Your task to perform on an android device: Go to Android settings Image 0: 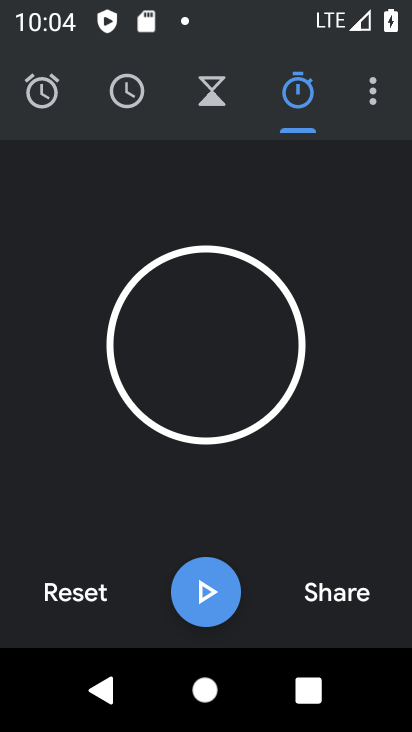
Step 0: press home button
Your task to perform on an android device: Go to Android settings Image 1: 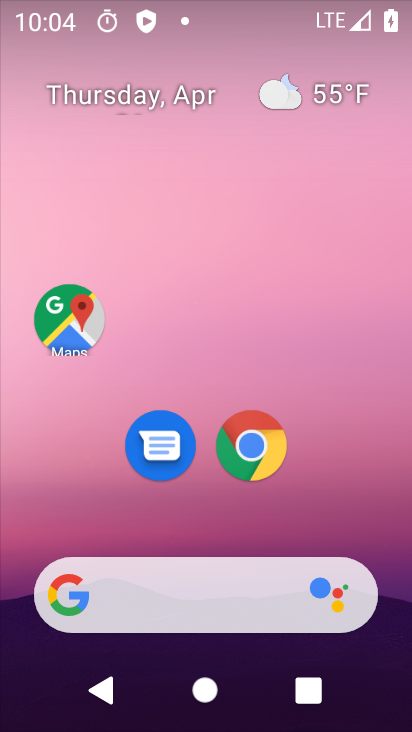
Step 1: drag from (342, 482) to (330, 10)
Your task to perform on an android device: Go to Android settings Image 2: 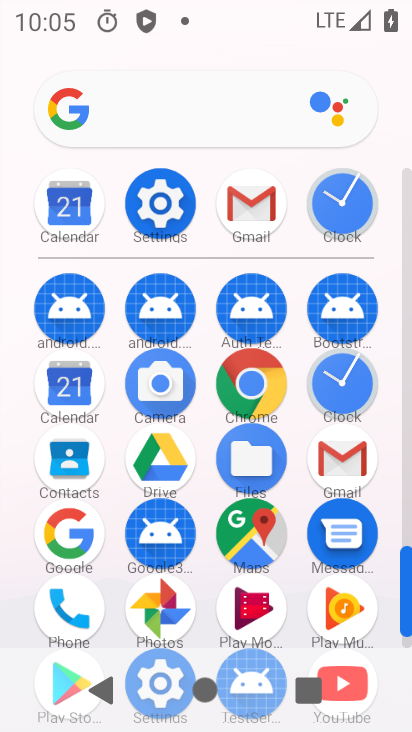
Step 2: click (160, 231)
Your task to perform on an android device: Go to Android settings Image 3: 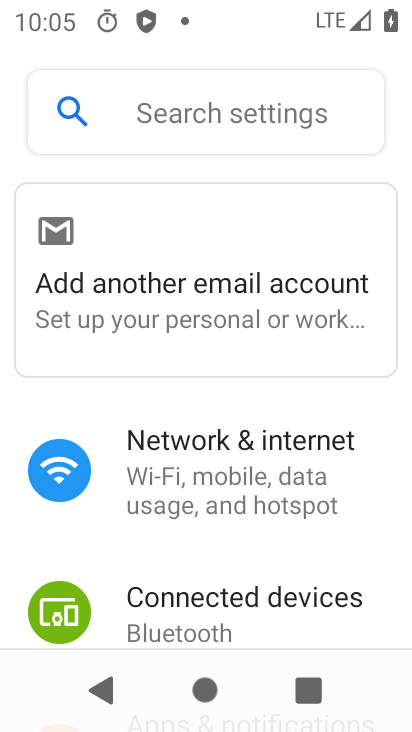
Step 3: task complete